Your task to perform on an android device: add a contact Image 0: 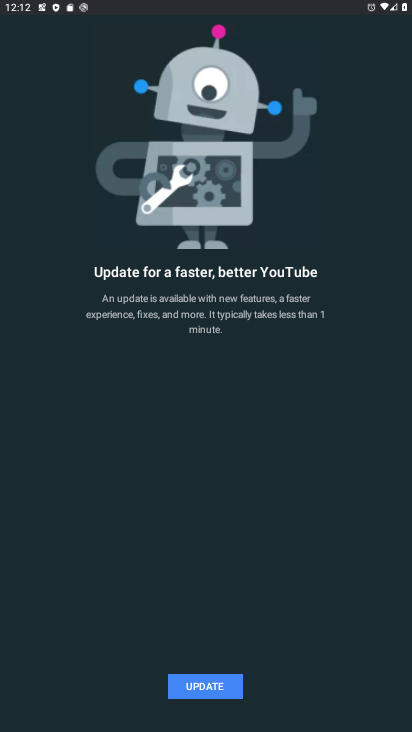
Step 0: press home button
Your task to perform on an android device: add a contact Image 1: 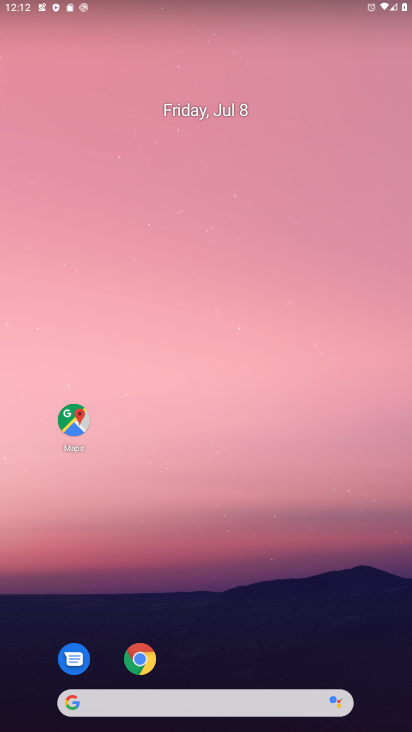
Step 1: drag from (205, 592) to (167, 5)
Your task to perform on an android device: add a contact Image 2: 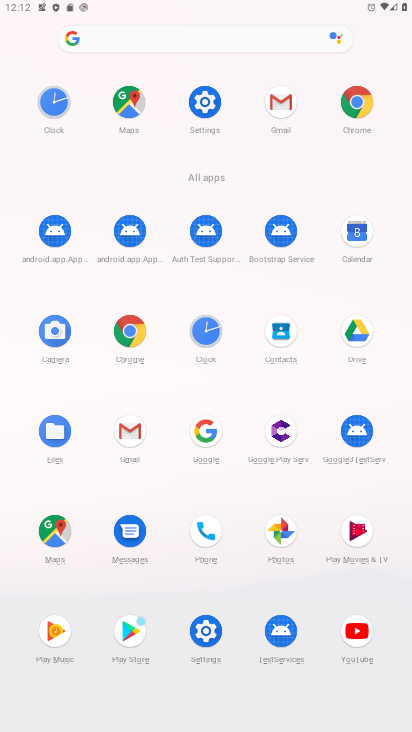
Step 2: click (280, 331)
Your task to perform on an android device: add a contact Image 3: 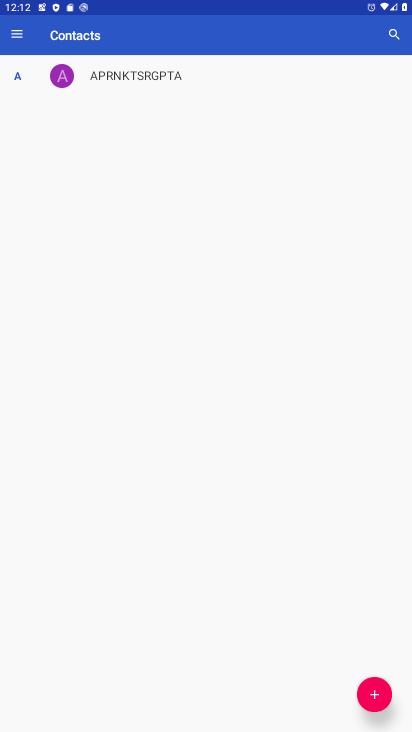
Step 3: click (367, 688)
Your task to perform on an android device: add a contact Image 4: 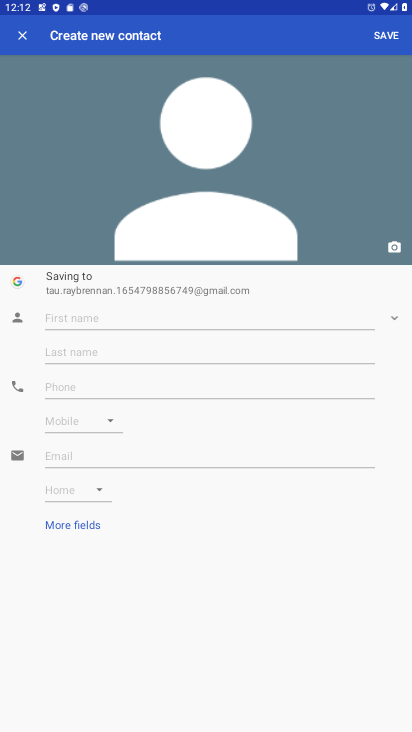
Step 4: click (148, 318)
Your task to perform on an android device: add a contact Image 5: 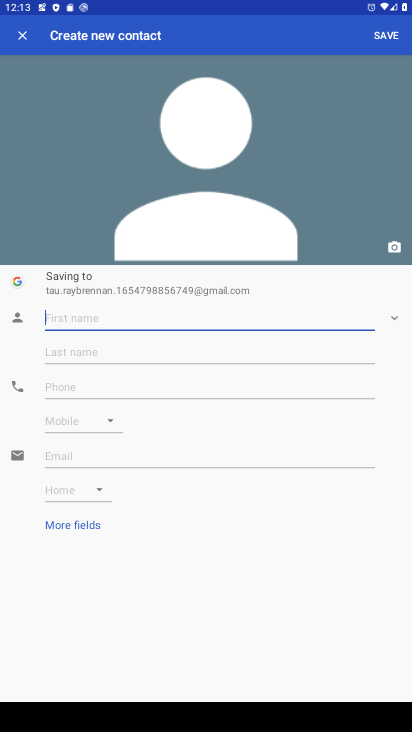
Step 5: type "jai"
Your task to perform on an android device: add a contact Image 6: 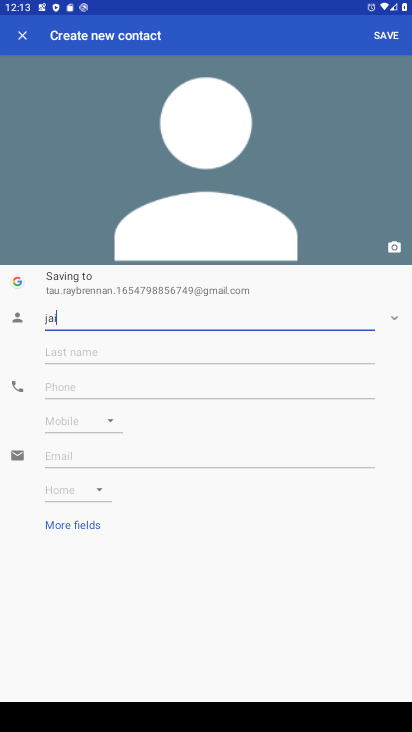
Step 6: click (207, 381)
Your task to perform on an android device: add a contact Image 7: 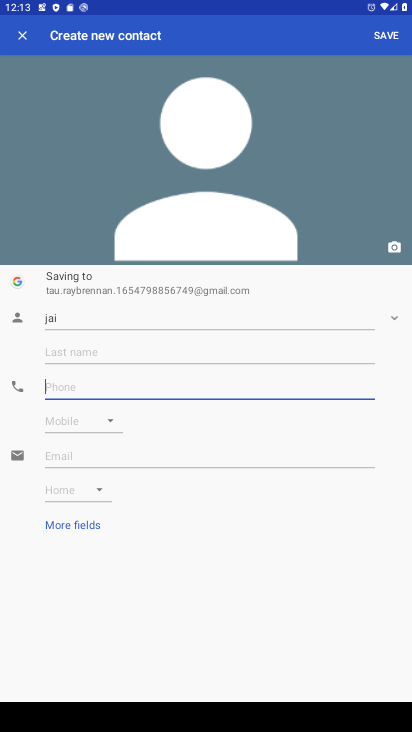
Step 7: type "987654e45678"
Your task to perform on an android device: add a contact Image 8: 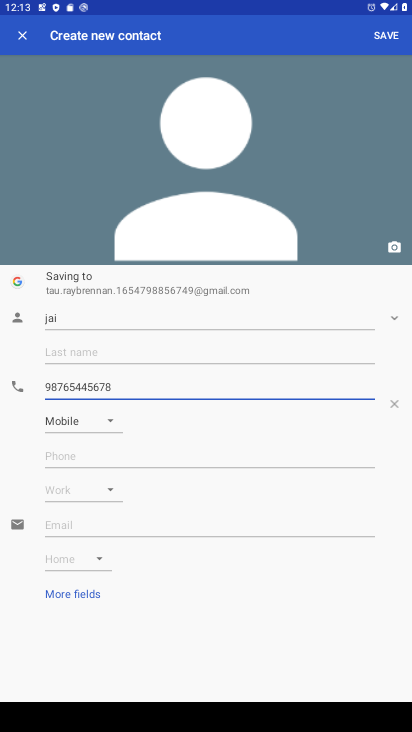
Step 8: click (382, 27)
Your task to perform on an android device: add a contact Image 9: 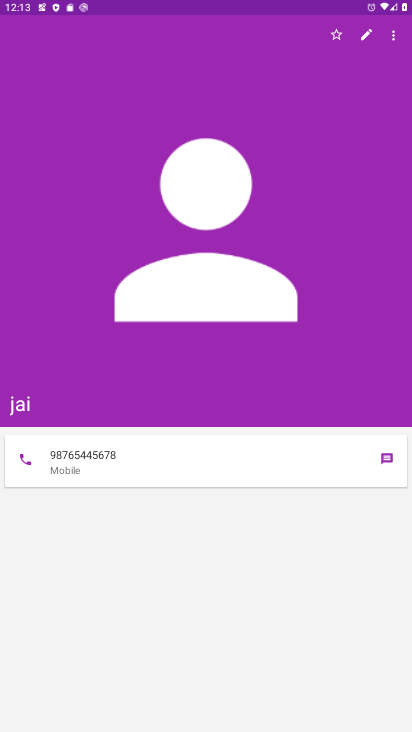
Step 9: task complete